Your task to perform on an android device: Open the stopwatch Image 0: 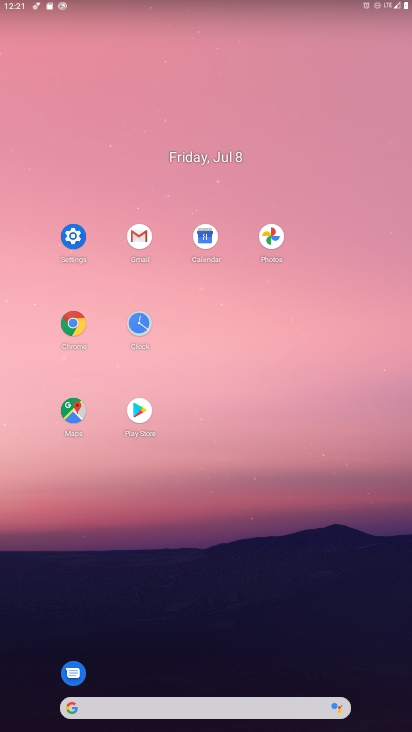
Step 0: click (141, 328)
Your task to perform on an android device: Open the stopwatch Image 1: 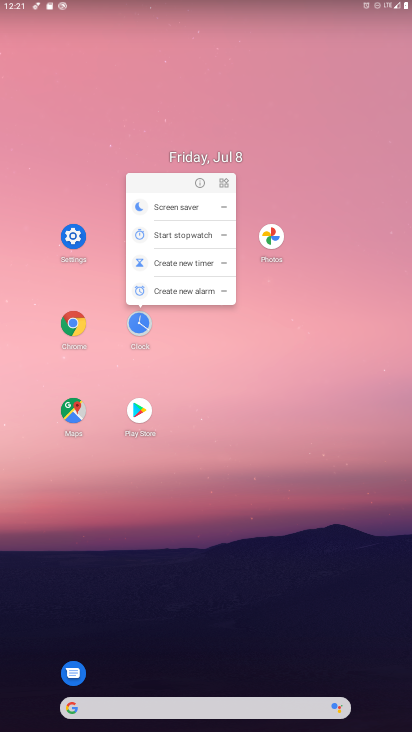
Step 1: click (141, 330)
Your task to perform on an android device: Open the stopwatch Image 2: 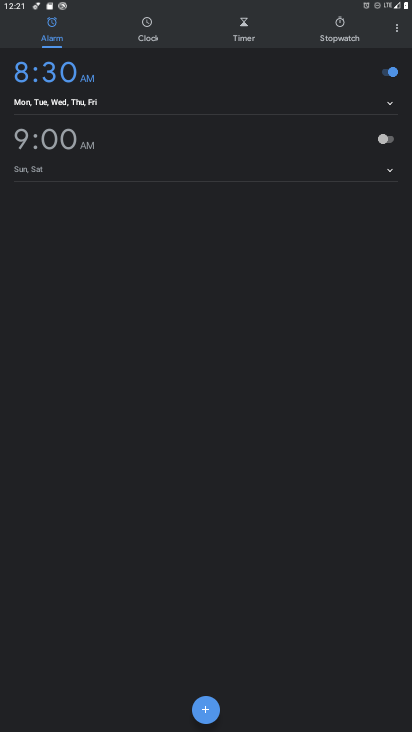
Step 2: click (333, 29)
Your task to perform on an android device: Open the stopwatch Image 3: 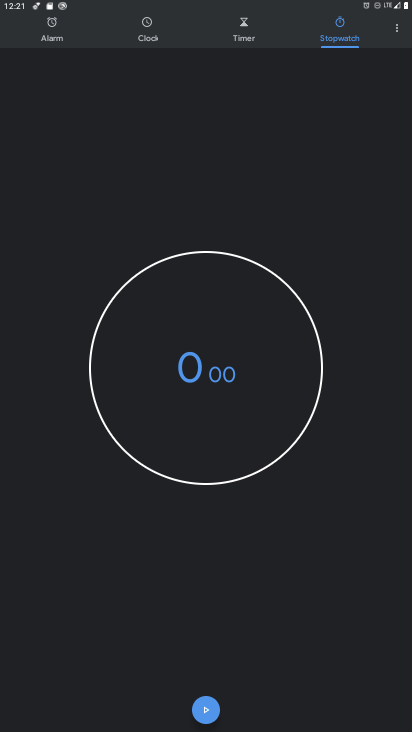
Step 3: task complete